Your task to perform on an android device: See recent photos Image 0: 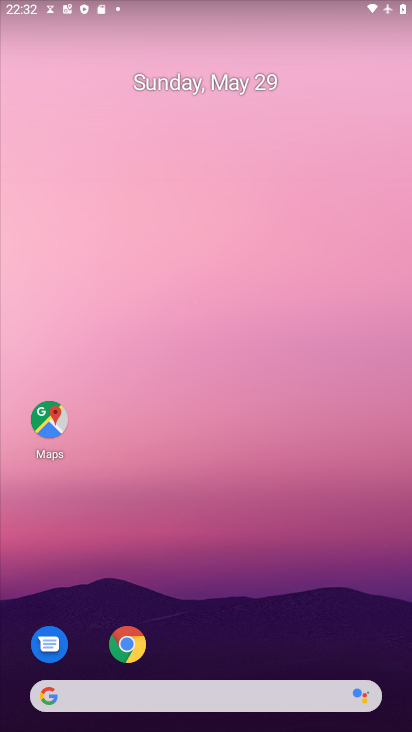
Step 0: drag from (193, 527) to (193, 296)
Your task to perform on an android device: See recent photos Image 1: 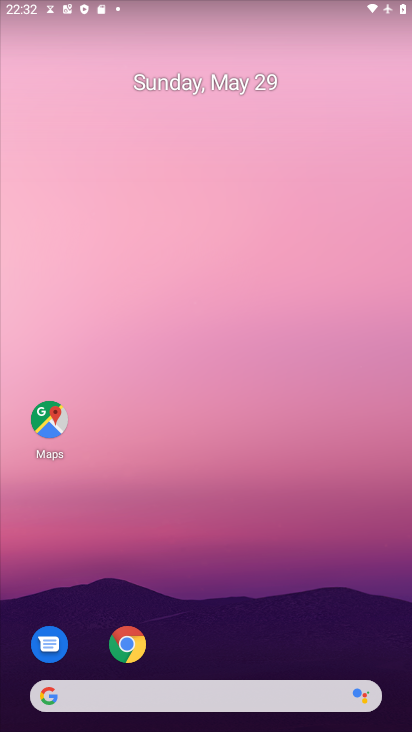
Step 1: drag from (219, 604) to (214, 246)
Your task to perform on an android device: See recent photos Image 2: 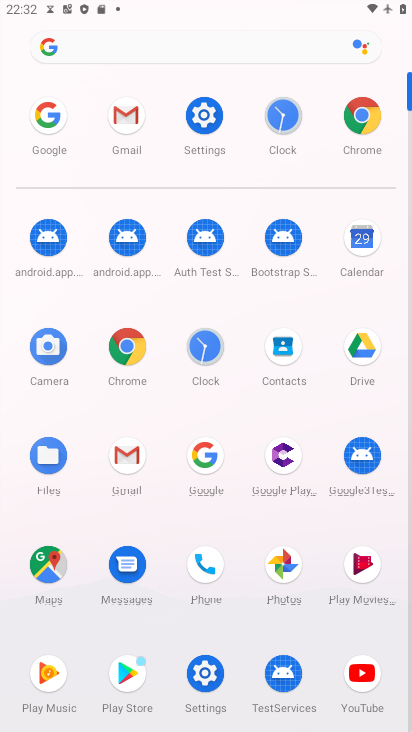
Step 2: click (277, 555)
Your task to perform on an android device: See recent photos Image 3: 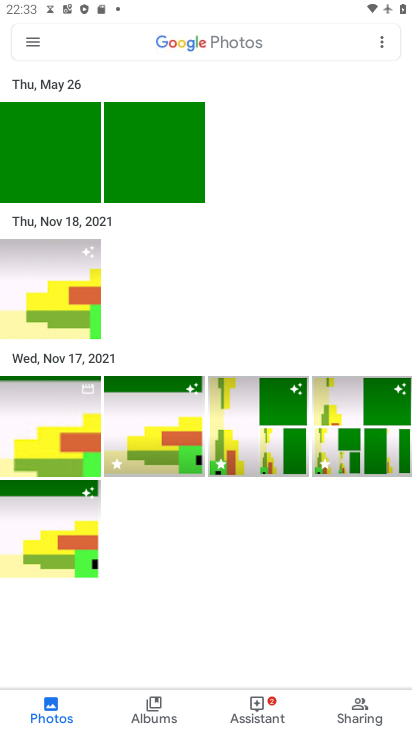
Step 3: task complete